Your task to perform on an android device: read, delete, or share a saved page in the chrome app Image 0: 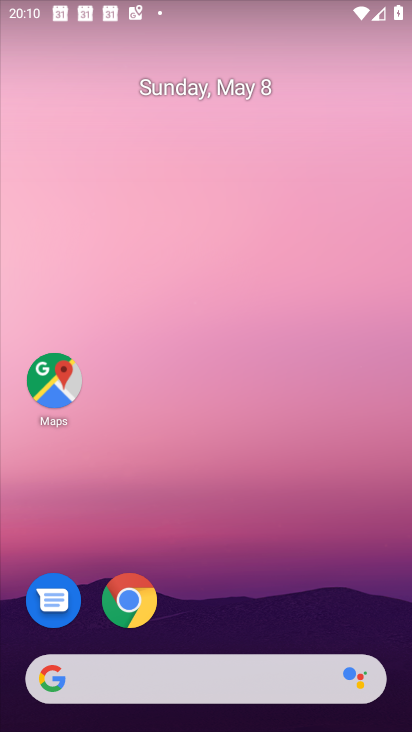
Step 0: drag from (258, 717) to (250, 222)
Your task to perform on an android device: read, delete, or share a saved page in the chrome app Image 1: 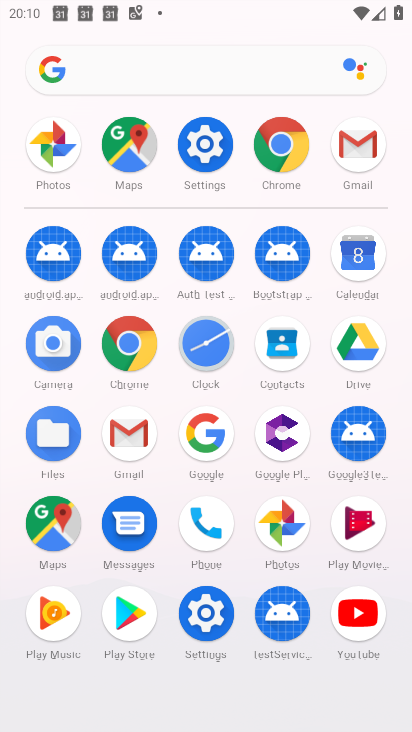
Step 1: click (280, 145)
Your task to perform on an android device: read, delete, or share a saved page in the chrome app Image 2: 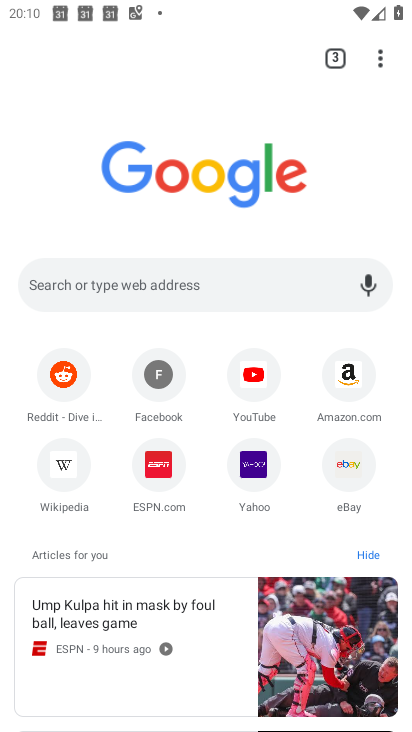
Step 2: click (337, 49)
Your task to perform on an android device: read, delete, or share a saved page in the chrome app Image 3: 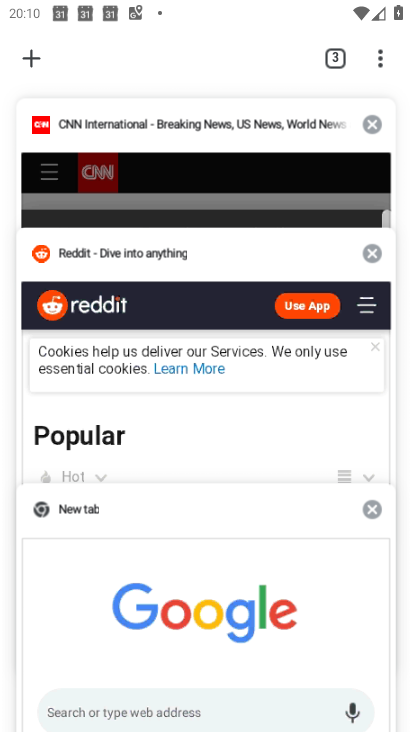
Step 3: click (219, 188)
Your task to perform on an android device: read, delete, or share a saved page in the chrome app Image 4: 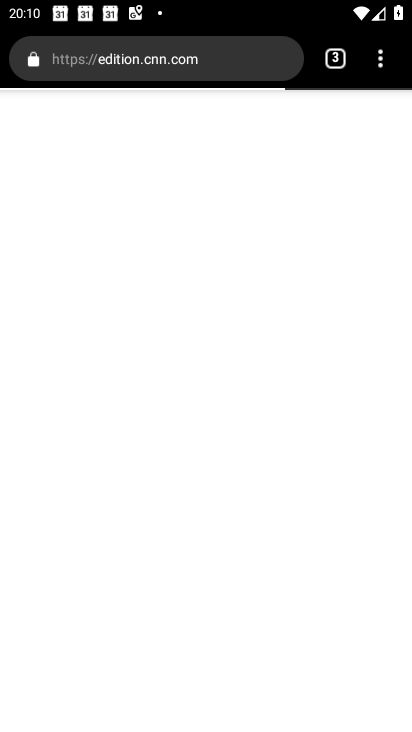
Step 4: click (383, 69)
Your task to perform on an android device: read, delete, or share a saved page in the chrome app Image 5: 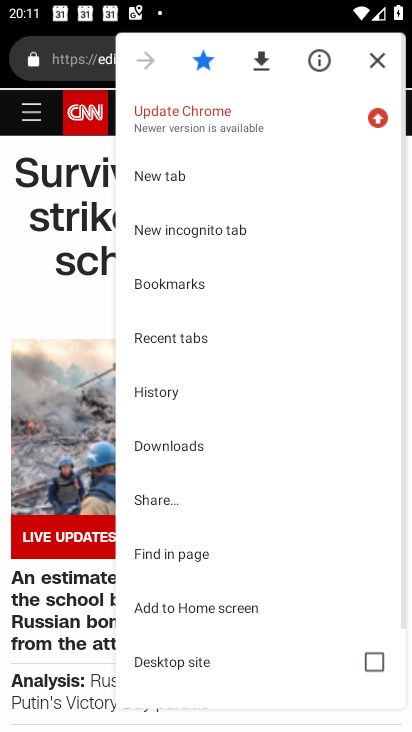
Step 5: click (209, 498)
Your task to perform on an android device: read, delete, or share a saved page in the chrome app Image 6: 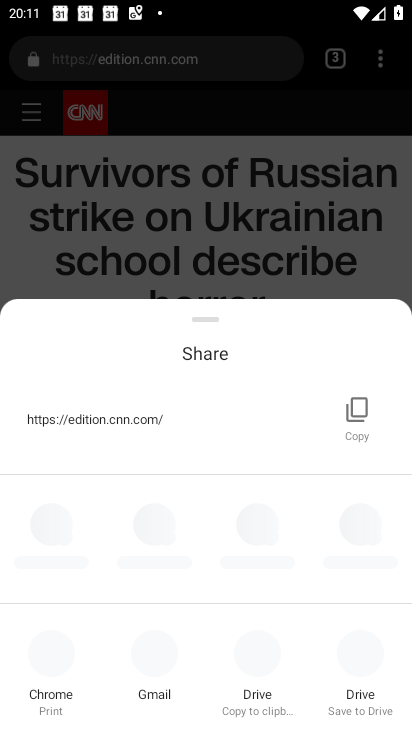
Step 6: task complete